Your task to perform on an android device: choose inbox layout in the gmail app Image 0: 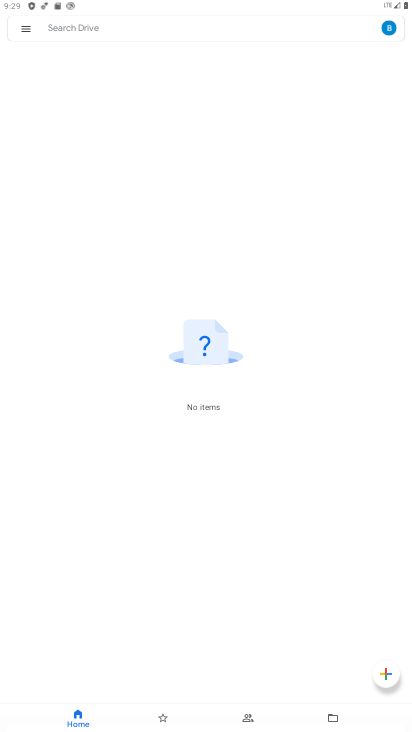
Step 0: drag from (217, 451) to (225, 53)
Your task to perform on an android device: choose inbox layout in the gmail app Image 1: 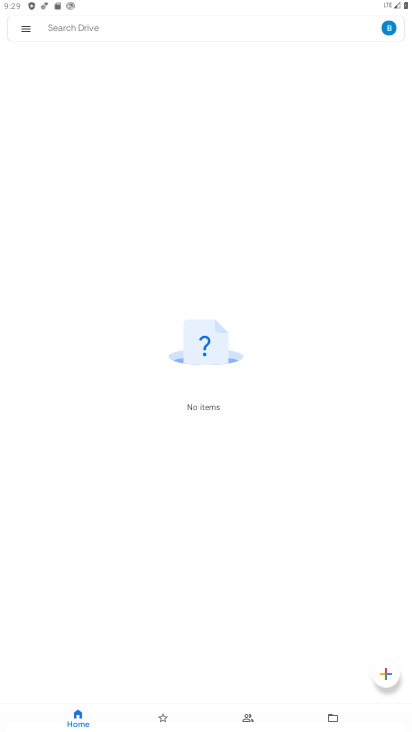
Step 1: press home button
Your task to perform on an android device: choose inbox layout in the gmail app Image 2: 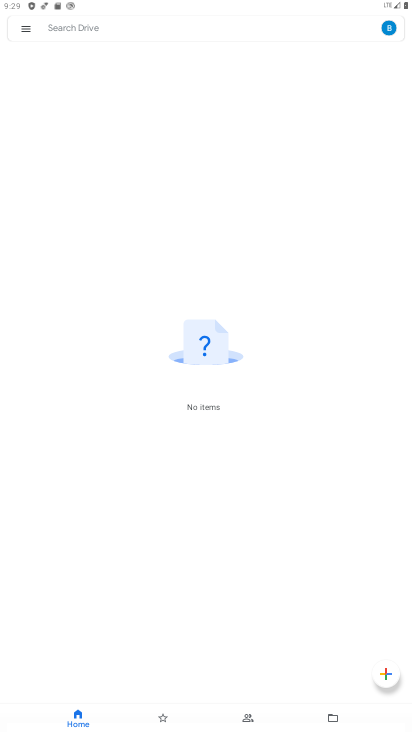
Step 2: drag from (208, 610) to (238, 442)
Your task to perform on an android device: choose inbox layout in the gmail app Image 3: 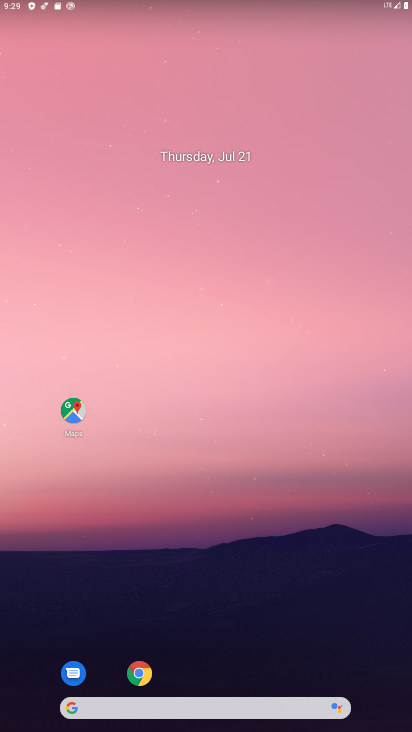
Step 3: drag from (195, 609) to (229, 281)
Your task to perform on an android device: choose inbox layout in the gmail app Image 4: 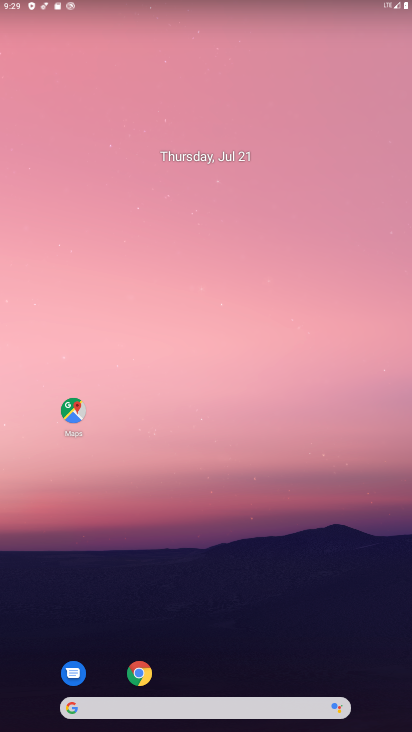
Step 4: drag from (182, 638) to (210, 173)
Your task to perform on an android device: choose inbox layout in the gmail app Image 5: 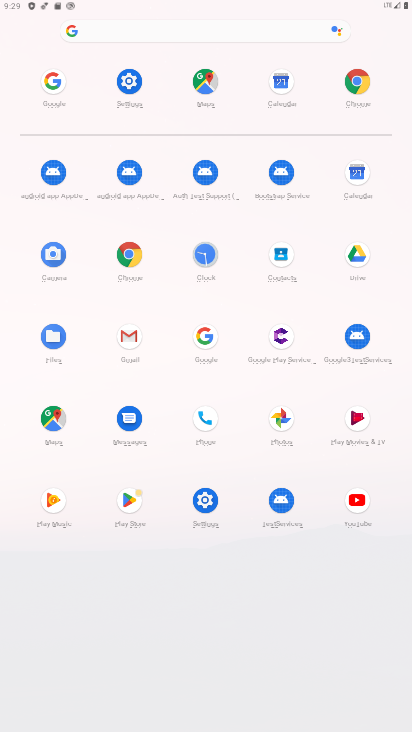
Step 5: click (122, 341)
Your task to perform on an android device: choose inbox layout in the gmail app Image 6: 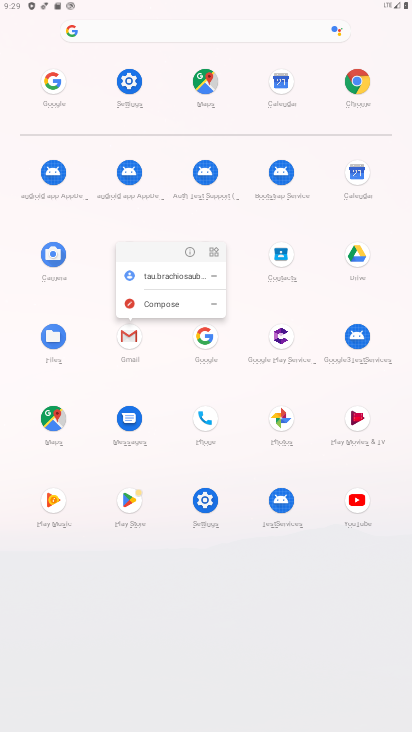
Step 6: click (191, 249)
Your task to perform on an android device: choose inbox layout in the gmail app Image 7: 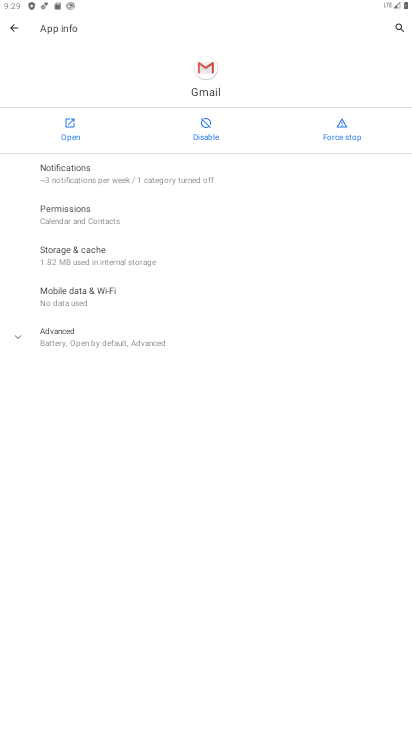
Step 7: click (57, 132)
Your task to perform on an android device: choose inbox layout in the gmail app Image 8: 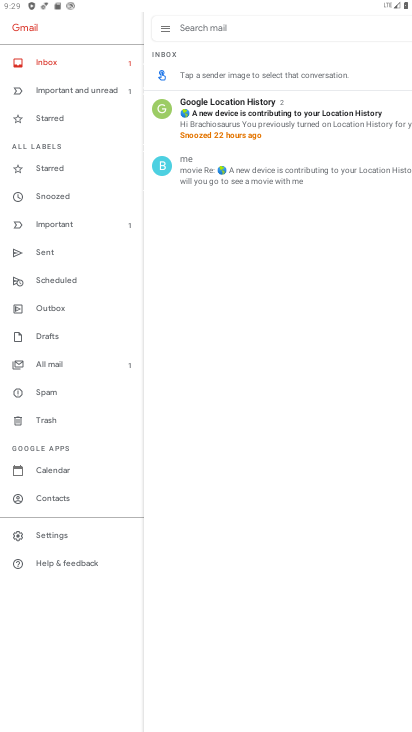
Step 8: click (63, 63)
Your task to perform on an android device: choose inbox layout in the gmail app Image 9: 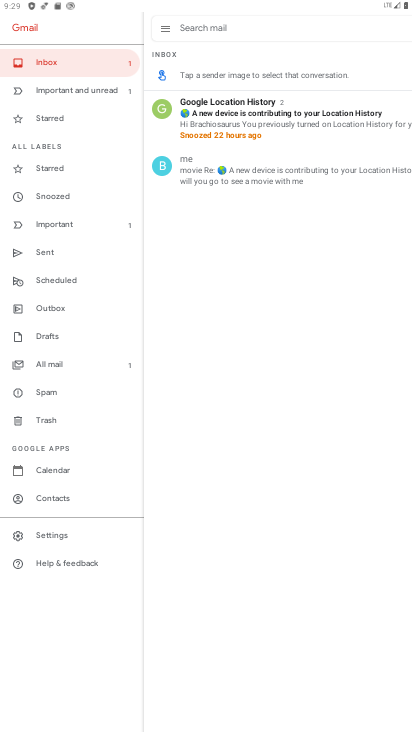
Step 9: task complete